Your task to perform on an android device: Open the web browser Image 0: 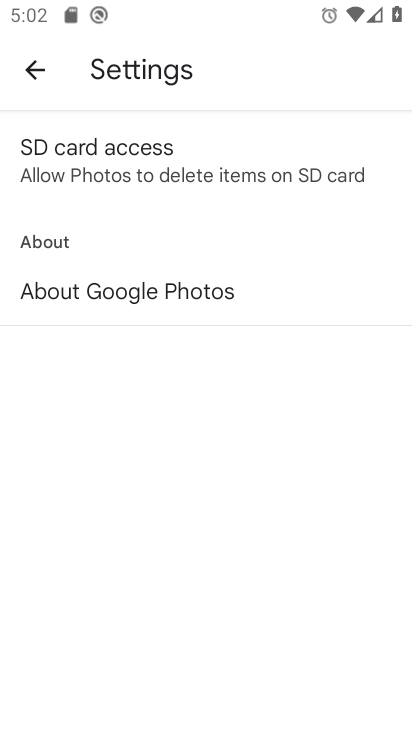
Step 0: press home button
Your task to perform on an android device: Open the web browser Image 1: 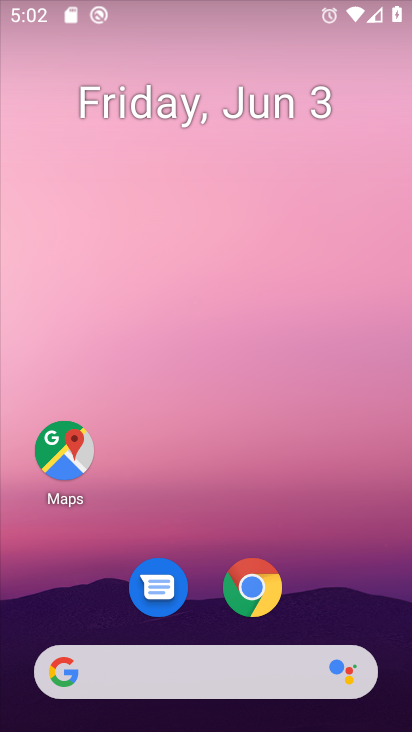
Step 1: click (251, 586)
Your task to perform on an android device: Open the web browser Image 2: 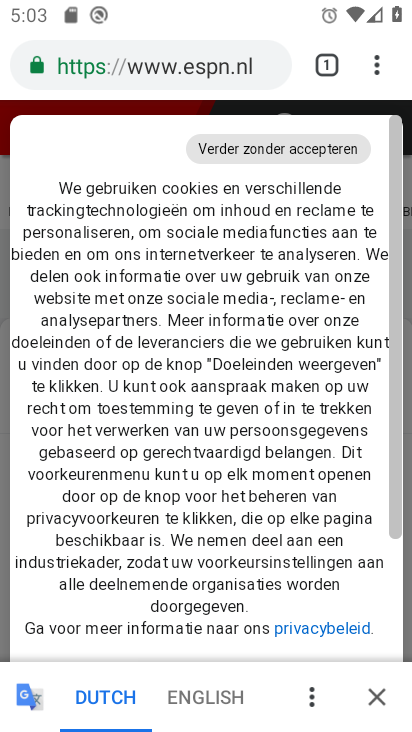
Step 2: task complete